Your task to perform on an android device: Search for pizza restaurants on Maps Image 0: 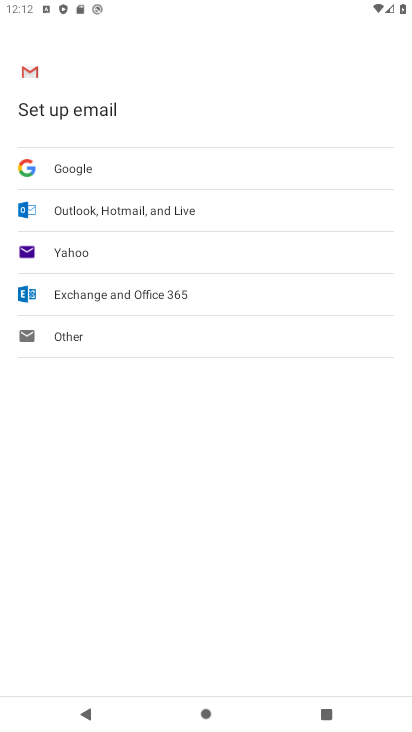
Step 0: press home button
Your task to perform on an android device: Search for pizza restaurants on Maps Image 1: 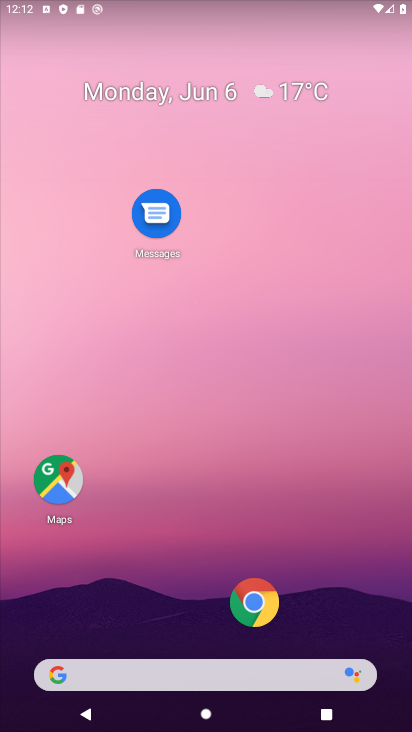
Step 1: drag from (376, 595) to (275, 85)
Your task to perform on an android device: Search for pizza restaurants on Maps Image 2: 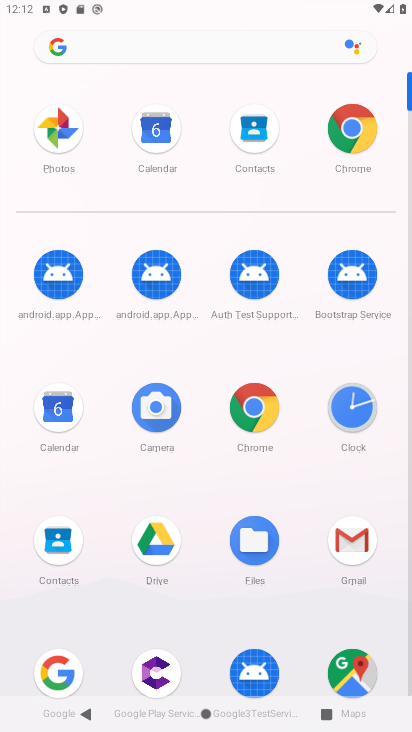
Step 2: click (346, 674)
Your task to perform on an android device: Search for pizza restaurants on Maps Image 3: 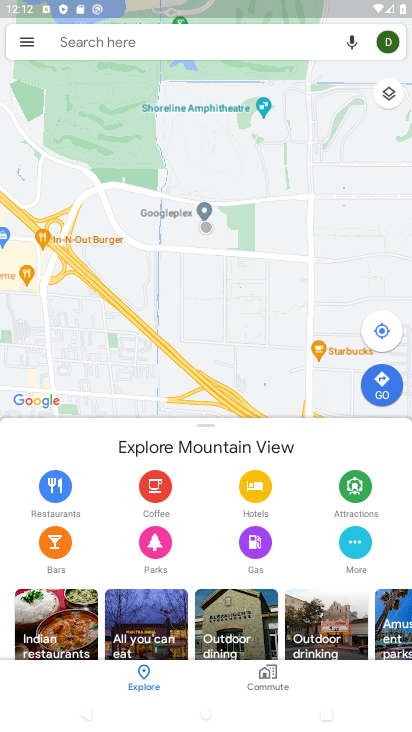
Step 3: click (189, 48)
Your task to perform on an android device: Search for pizza restaurants on Maps Image 4: 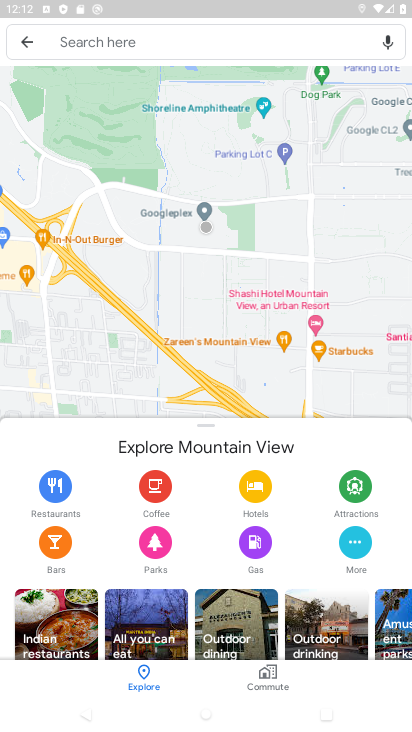
Step 4: click (175, 40)
Your task to perform on an android device: Search for pizza restaurants on Maps Image 5: 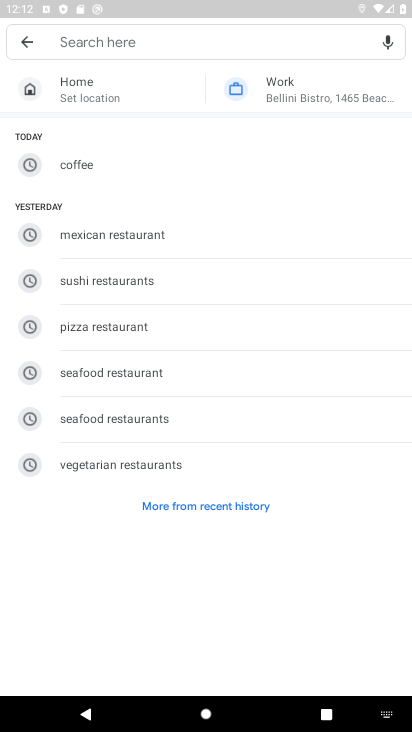
Step 5: click (194, 323)
Your task to perform on an android device: Search for pizza restaurants on Maps Image 6: 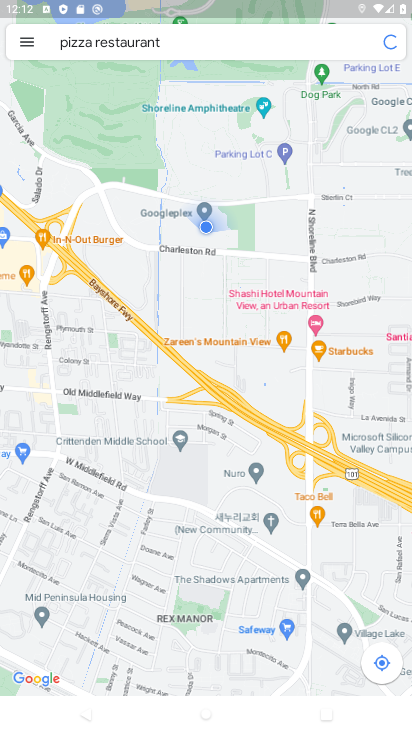
Step 6: task complete